Your task to perform on an android device: change the clock display to show seconds Image 0: 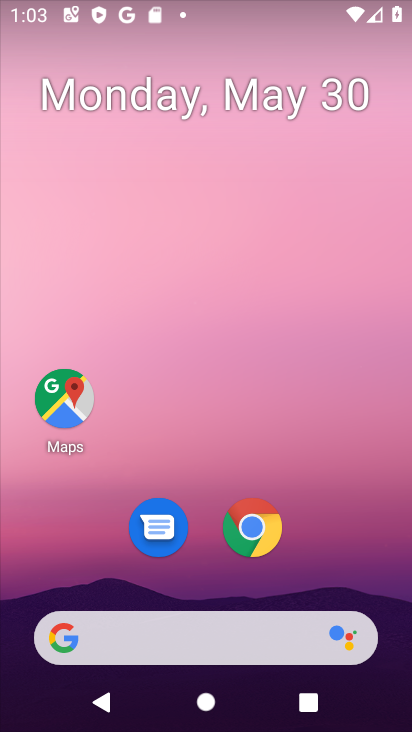
Step 0: drag from (377, 568) to (285, 92)
Your task to perform on an android device: change the clock display to show seconds Image 1: 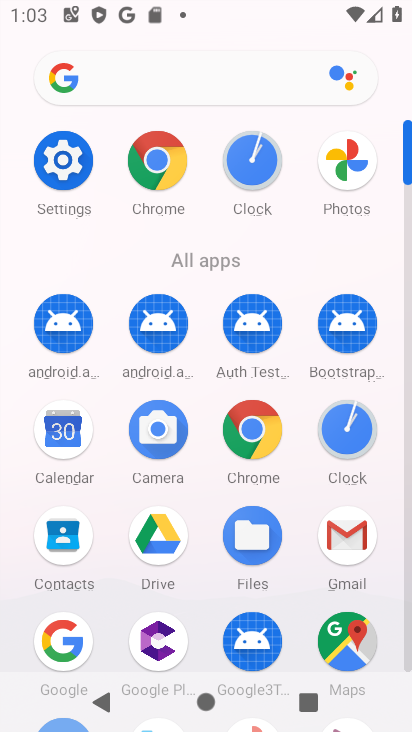
Step 1: click (361, 413)
Your task to perform on an android device: change the clock display to show seconds Image 2: 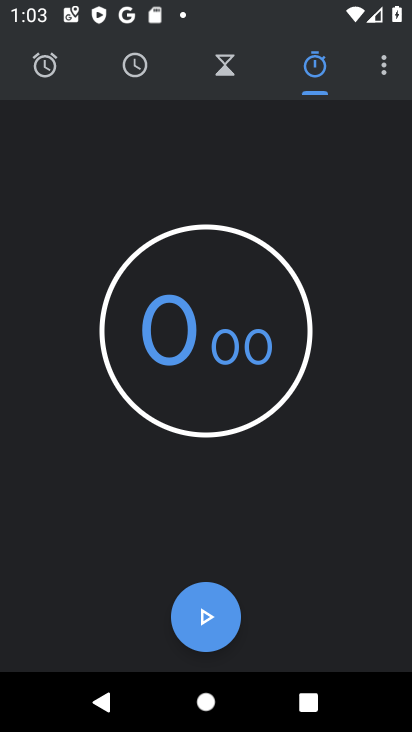
Step 2: click (385, 79)
Your task to perform on an android device: change the clock display to show seconds Image 3: 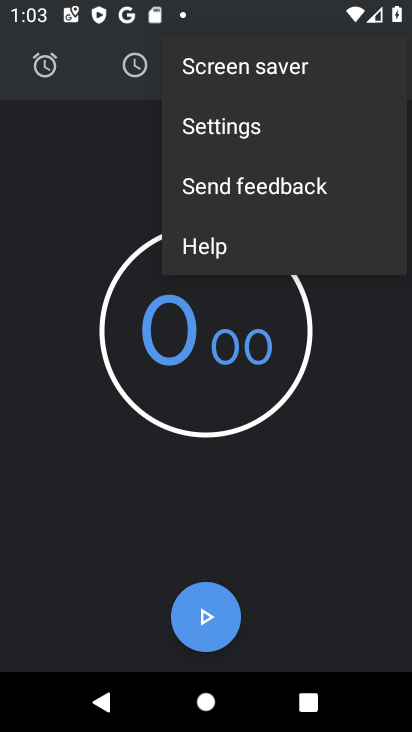
Step 3: click (312, 117)
Your task to perform on an android device: change the clock display to show seconds Image 4: 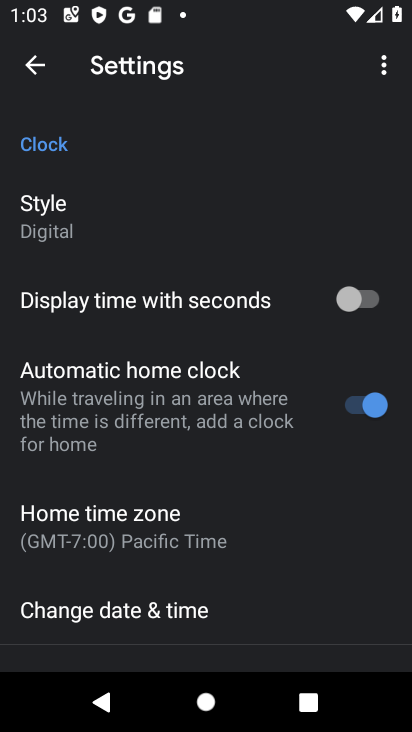
Step 4: click (354, 311)
Your task to perform on an android device: change the clock display to show seconds Image 5: 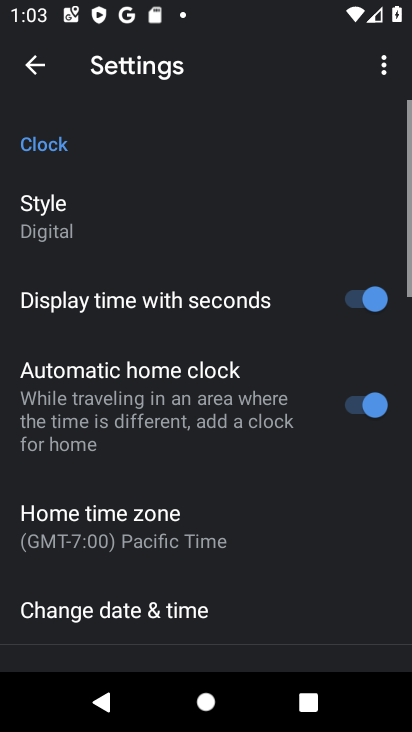
Step 5: task complete